Your task to perform on an android device: Open Chrome and go to settings Image 0: 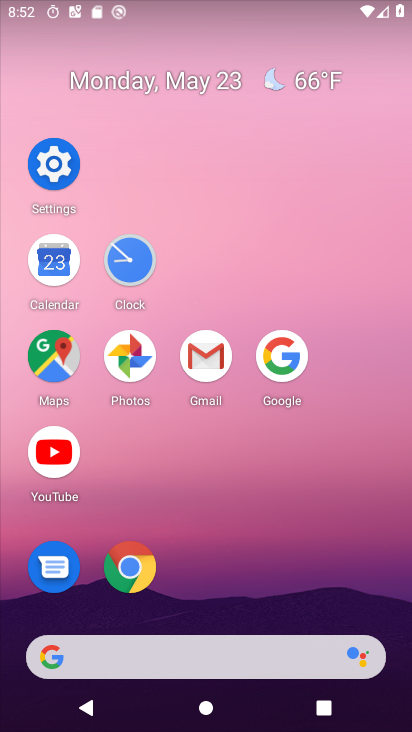
Step 0: click (112, 579)
Your task to perform on an android device: Open Chrome and go to settings Image 1: 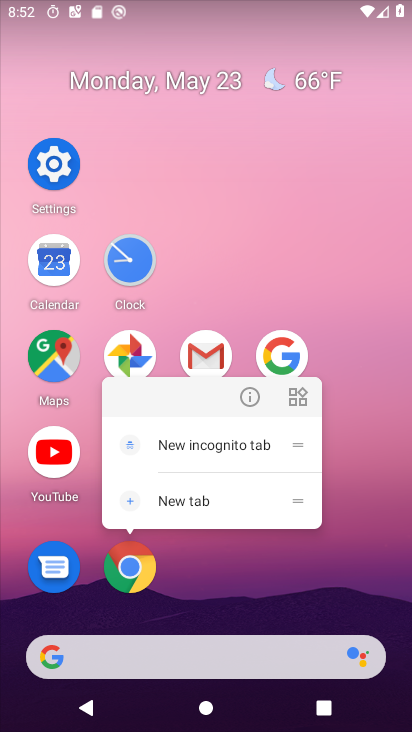
Step 1: click (142, 559)
Your task to perform on an android device: Open Chrome and go to settings Image 2: 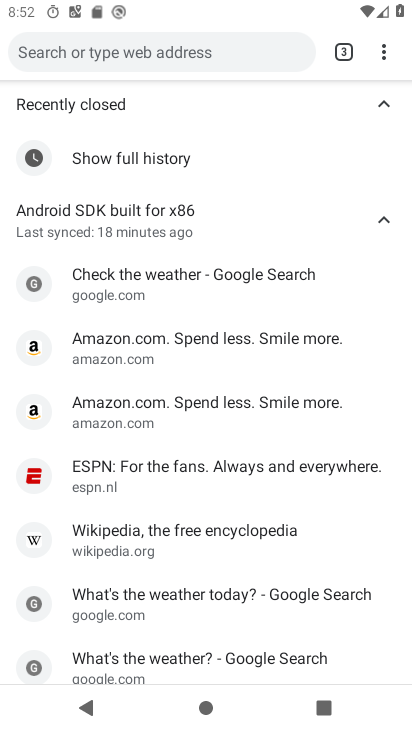
Step 2: click (391, 44)
Your task to perform on an android device: Open Chrome and go to settings Image 3: 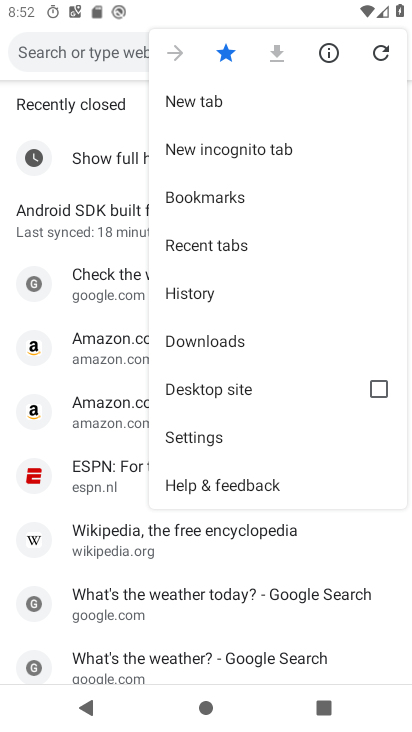
Step 3: click (233, 435)
Your task to perform on an android device: Open Chrome and go to settings Image 4: 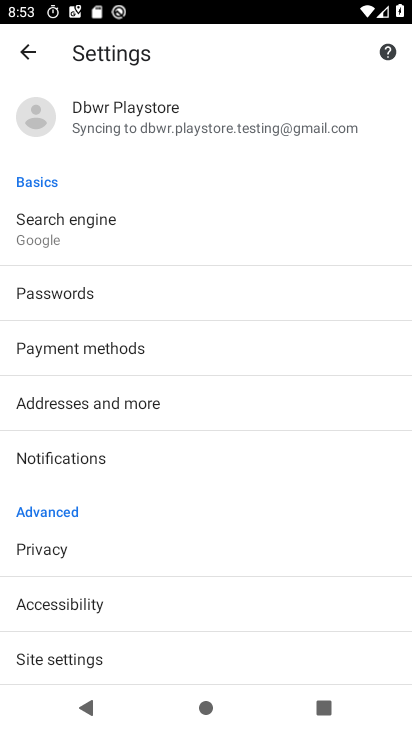
Step 4: task complete